Your task to perform on an android device: toggle notification dots Image 0: 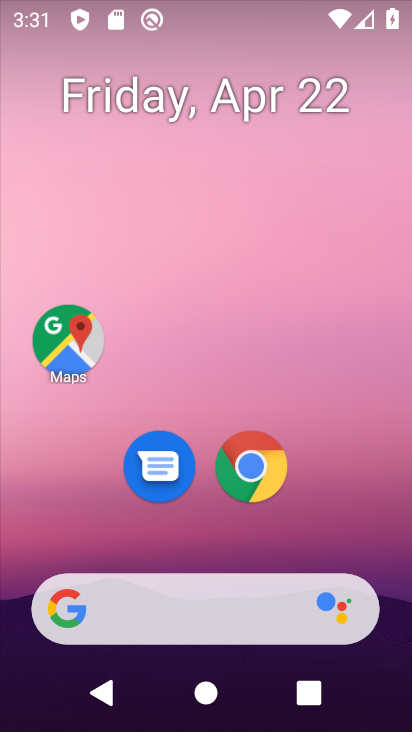
Step 0: drag from (377, 533) to (286, 96)
Your task to perform on an android device: toggle notification dots Image 1: 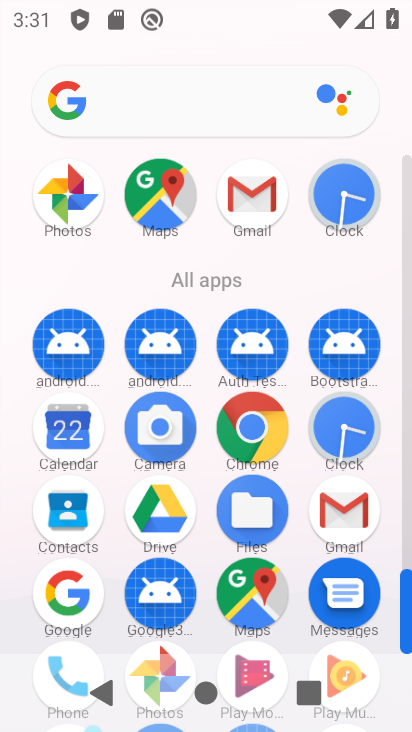
Step 1: drag from (406, 547) to (396, 440)
Your task to perform on an android device: toggle notification dots Image 2: 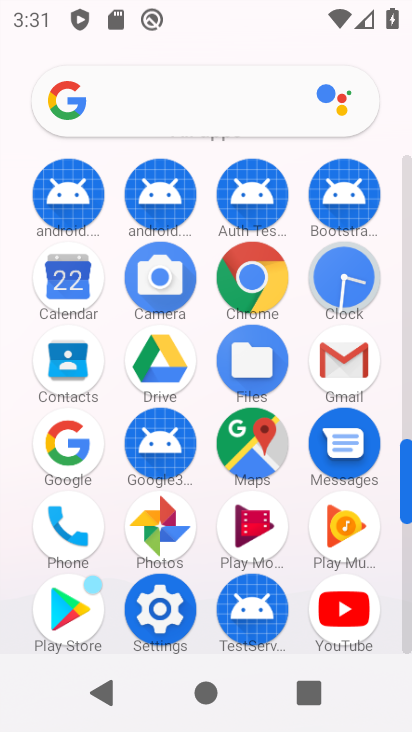
Step 2: click (160, 608)
Your task to perform on an android device: toggle notification dots Image 3: 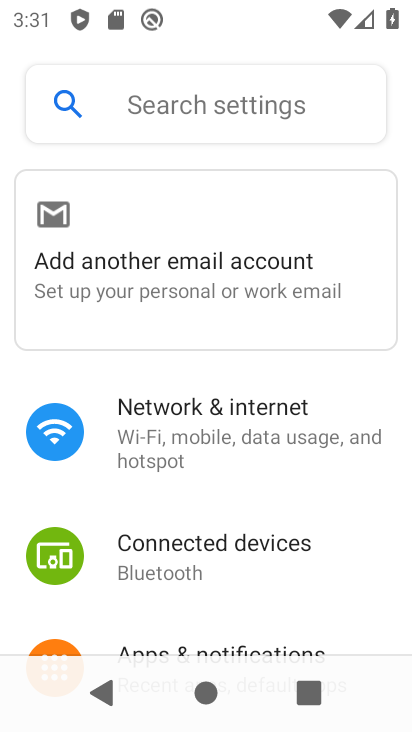
Step 3: drag from (341, 555) to (350, 227)
Your task to perform on an android device: toggle notification dots Image 4: 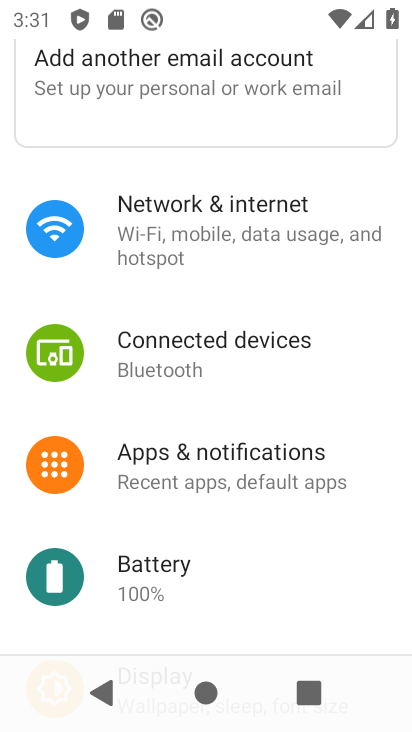
Step 4: click (194, 465)
Your task to perform on an android device: toggle notification dots Image 5: 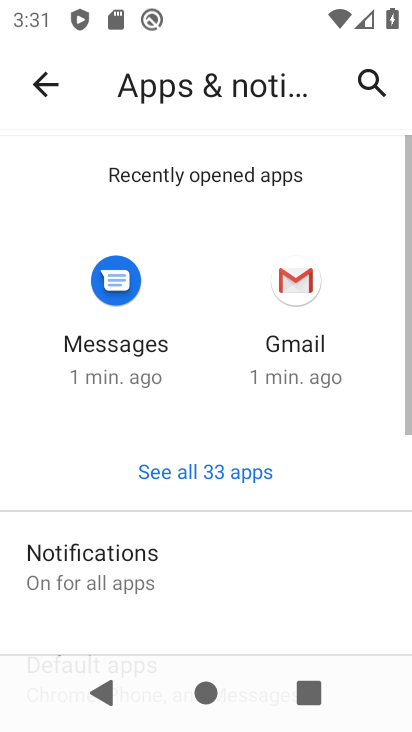
Step 5: click (118, 554)
Your task to perform on an android device: toggle notification dots Image 6: 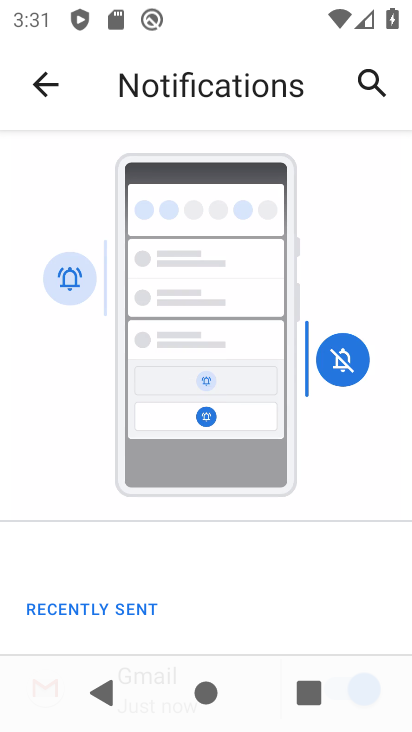
Step 6: drag from (284, 599) to (223, 150)
Your task to perform on an android device: toggle notification dots Image 7: 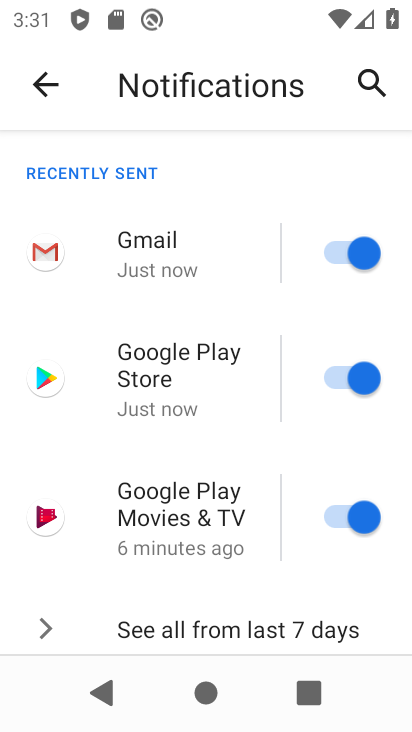
Step 7: drag from (274, 557) to (260, 218)
Your task to perform on an android device: toggle notification dots Image 8: 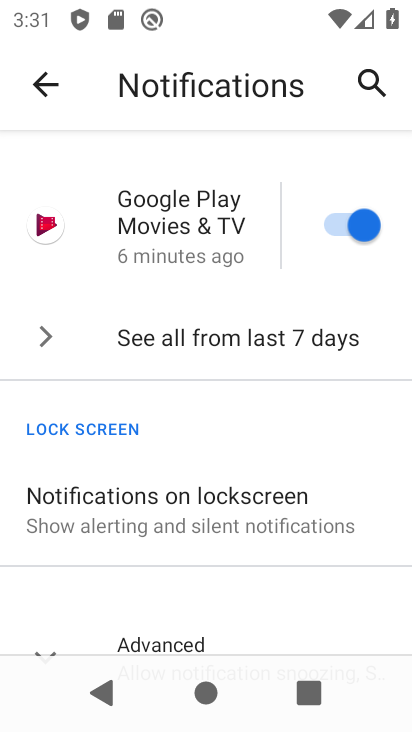
Step 8: drag from (177, 568) to (205, 321)
Your task to perform on an android device: toggle notification dots Image 9: 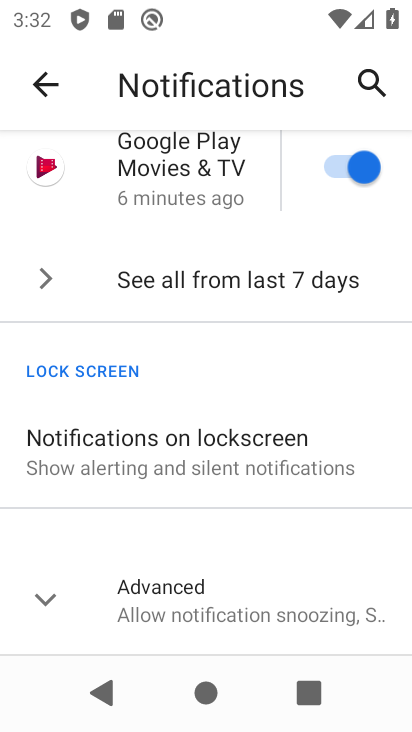
Step 9: click (46, 606)
Your task to perform on an android device: toggle notification dots Image 10: 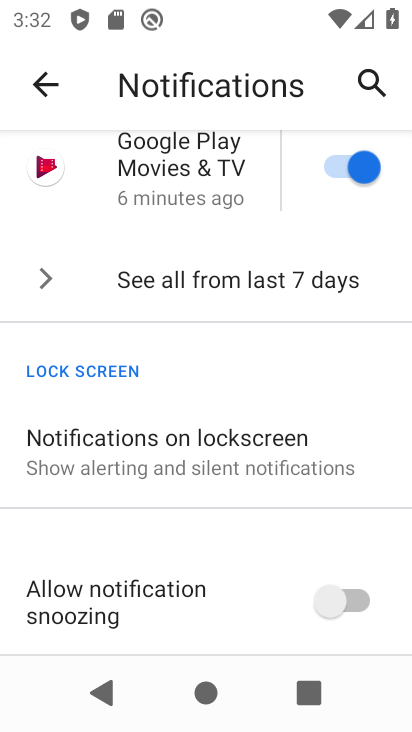
Step 10: drag from (169, 591) to (248, 243)
Your task to perform on an android device: toggle notification dots Image 11: 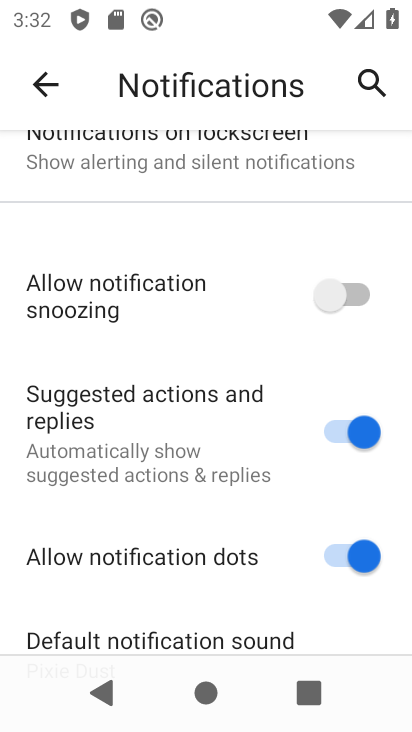
Step 11: drag from (281, 550) to (244, 194)
Your task to perform on an android device: toggle notification dots Image 12: 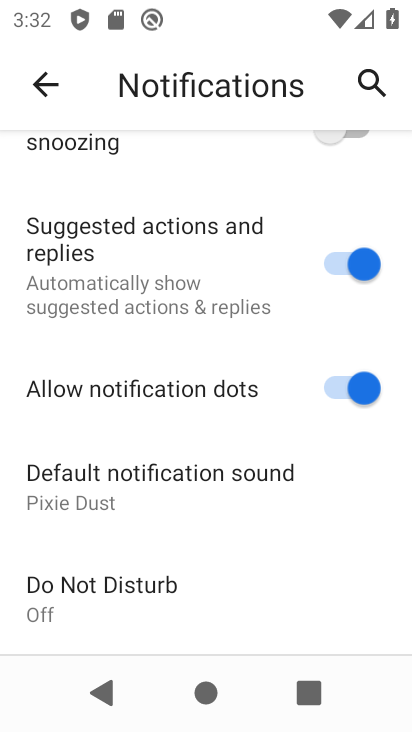
Step 12: click (333, 387)
Your task to perform on an android device: toggle notification dots Image 13: 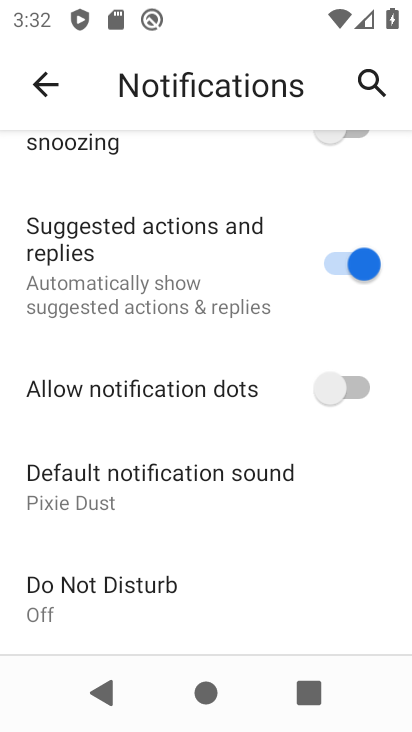
Step 13: task complete